Your task to perform on an android device: Search for sushi restaurants on Maps Image 0: 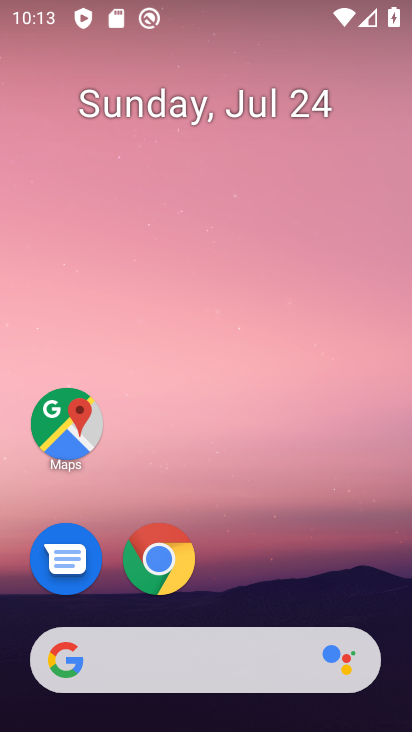
Step 0: click (56, 414)
Your task to perform on an android device: Search for sushi restaurants on Maps Image 1: 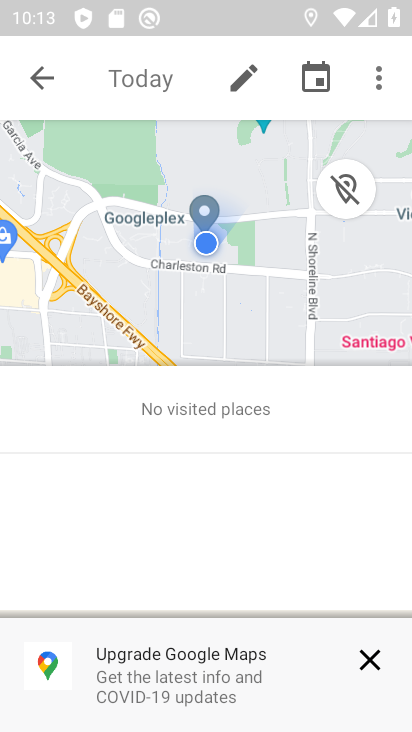
Step 1: click (58, 74)
Your task to perform on an android device: Search for sushi restaurants on Maps Image 2: 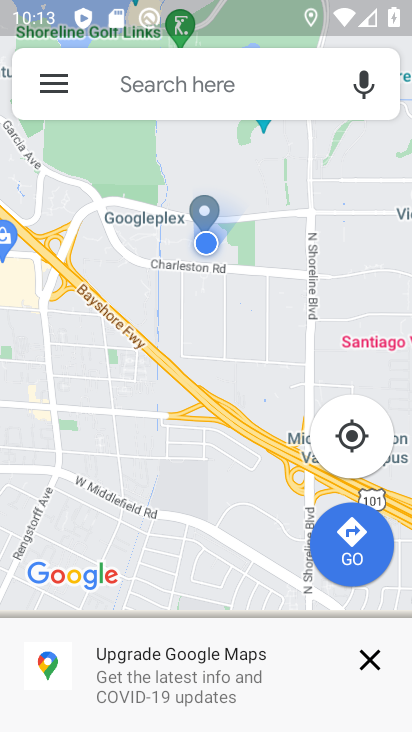
Step 2: click (203, 89)
Your task to perform on an android device: Search for sushi restaurants on Maps Image 3: 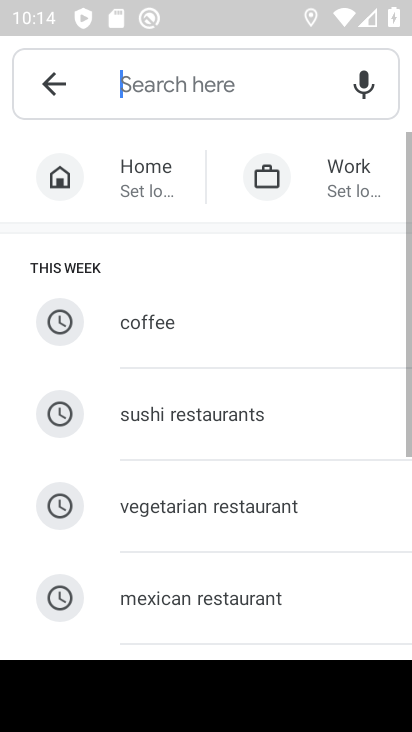
Step 3: click (162, 421)
Your task to perform on an android device: Search for sushi restaurants on Maps Image 4: 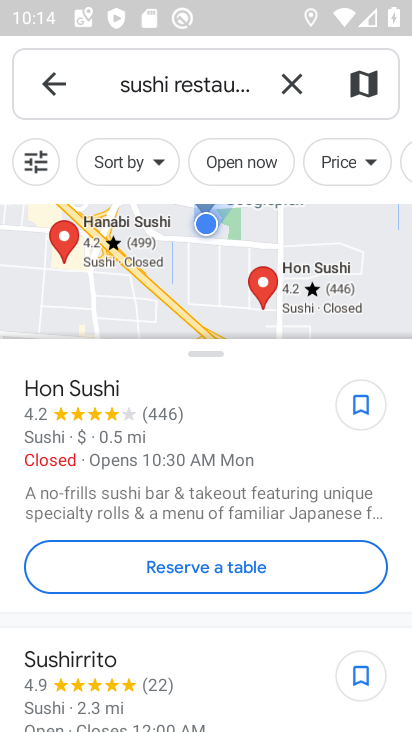
Step 4: task complete